Your task to perform on an android device: open app "Pandora - Music & Podcasts" (install if not already installed) Image 0: 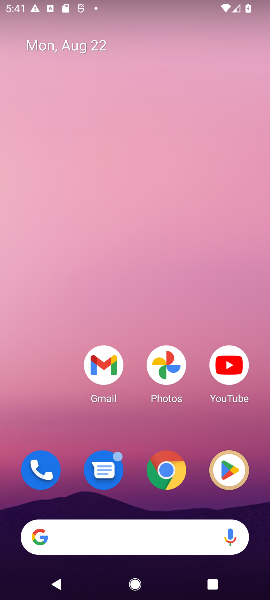
Step 0: drag from (125, 407) to (123, 203)
Your task to perform on an android device: open app "Pandora - Music & Podcasts" (install if not already installed) Image 1: 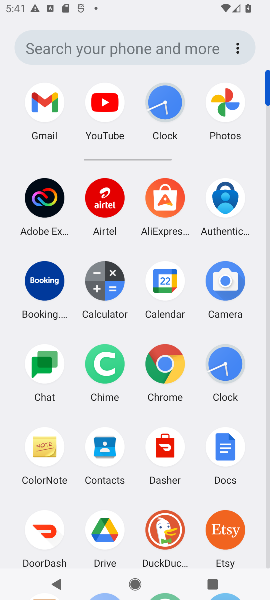
Step 1: drag from (123, 425) to (130, 132)
Your task to perform on an android device: open app "Pandora - Music & Podcasts" (install if not already installed) Image 2: 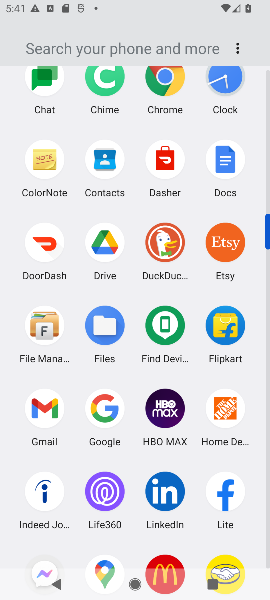
Step 2: drag from (137, 447) to (168, 163)
Your task to perform on an android device: open app "Pandora - Music & Podcasts" (install if not already installed) Image 3: 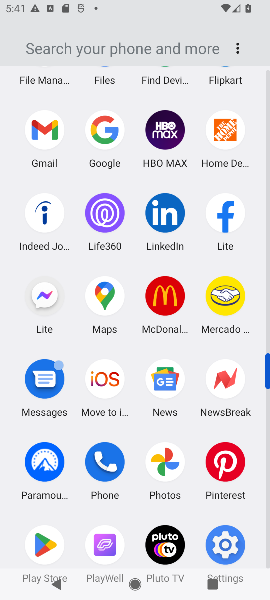
Step 3: click (37, 549)
Your task to perform on an android device: open app "Pandora - Music & Podcasts" (install if not already installed) Image 4: 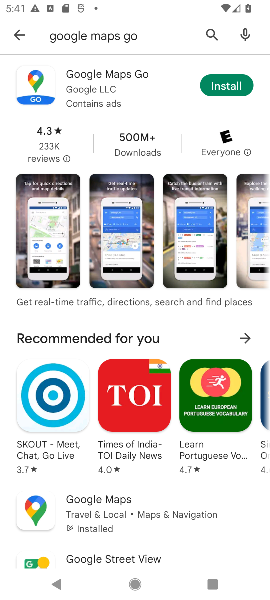
Step 4: click (18, 37)
Your task to perform on an android device: open app "Pandora - Music & Podcasts" (install if not already installed) Image 5: 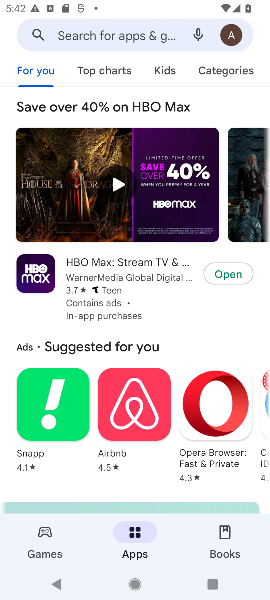
Step 5: click (95, 24)
Your task to perform on an android device: open app "Pandora - Music & Podcasts" (install if not already installed) Image 6: 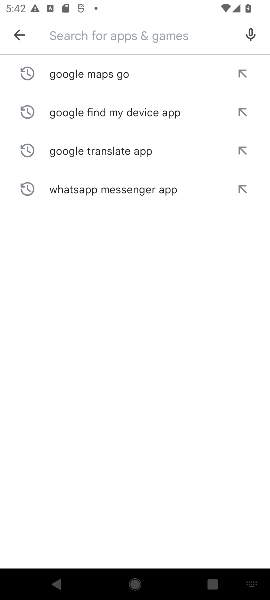
Step 6: type "Pandora "
Your task to perform on an android device: open app "Pandora - Music & Podcasts" (install if not already installed) Image 7: 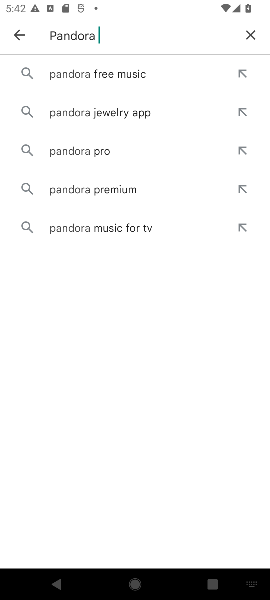
Step 7: click (96, 70)
Your task to perform on an android device: open app "Pandora - Music & Podcasts" (install if not already installed) Image 8: 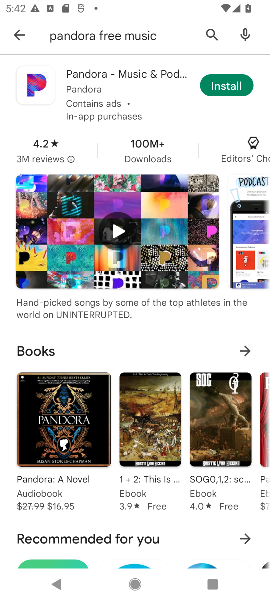
Step 8: click (228, 88)
Your task to perform on an android device: open app "Pandora - Music & Podcasts" (install if not already installed) Image 9: 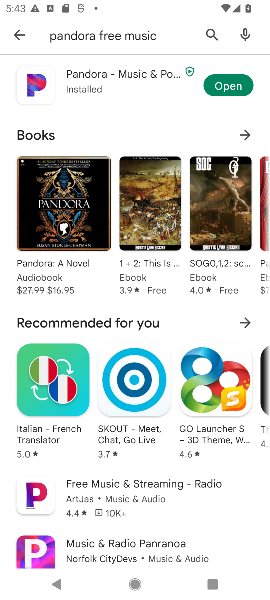
Step 9: click (228, 88)
Your task to perform on an android device: open app "Pandora - Music & Podcasts" (install if not already installed) Image 10: 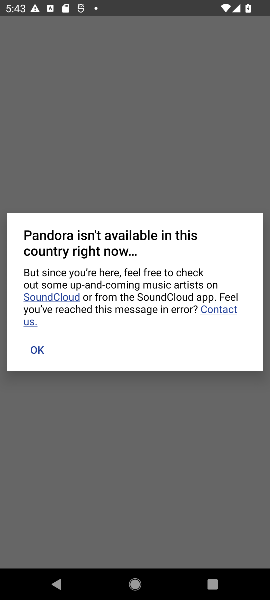
Step 10: task complete